Your task to perform on an android device: stop showing notifications on the lock screen Image 0: 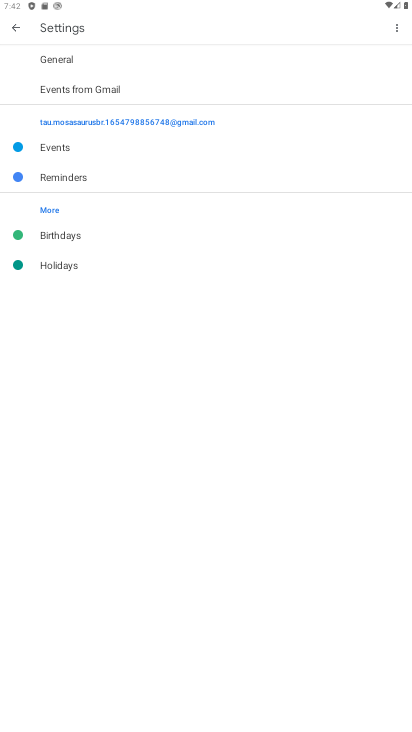
Step 0: press home button
Your task to perform on an android device: stop showing notifications on the lock screen Image 1: 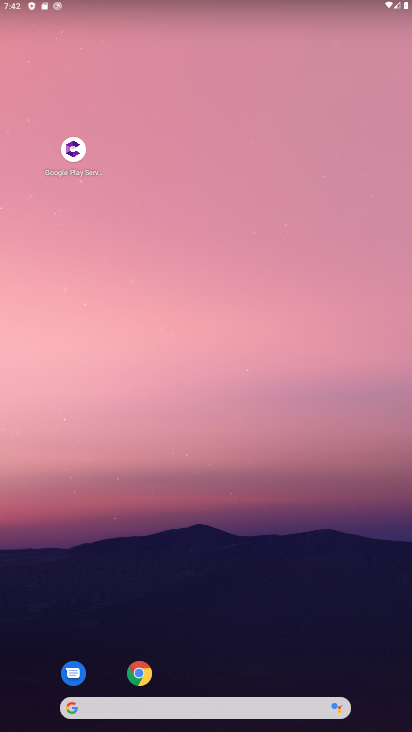
Step 1: drag from (263, 609) to (305, 110)
Your task to perform on an android device: stop showing notifications on the lock screen Image 2: 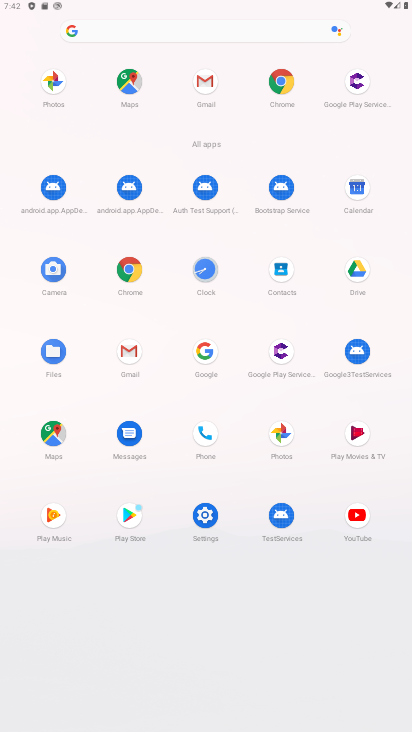
Step 2: click (204, 518)
Your task to perform on an android device: stop showing notifications on the lock screen Image 3: 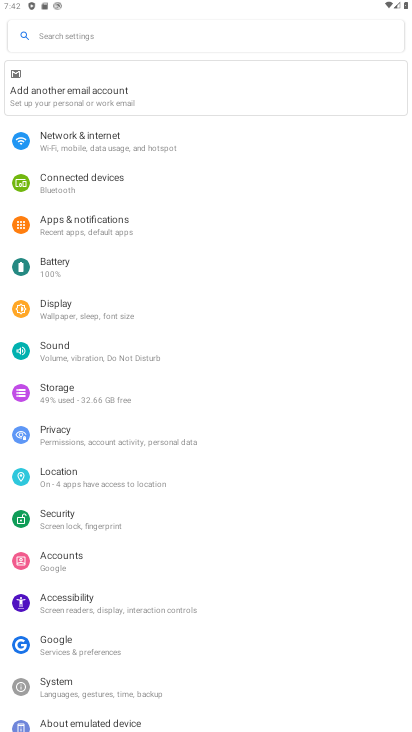
Step 3: click (111, 222)
Your task to perform on an android device: stop showing notifications on the lock screen Image 4: 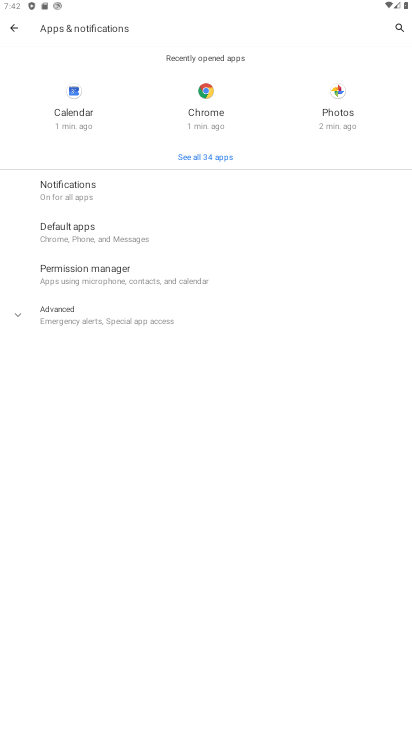
Step 4: click (84, 193)
Your task to perform on an android device: stop showing notifications on the lock screen Image 5: 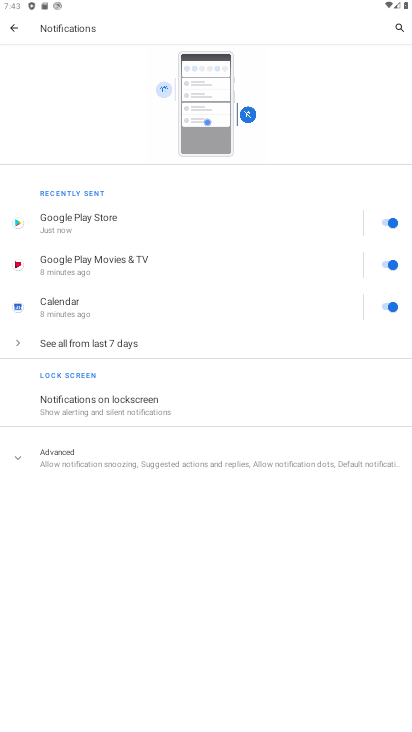
Step 5: click (150, 406)
Your task to perform on an android device: stop showing notifications on the lock screen Image 6: 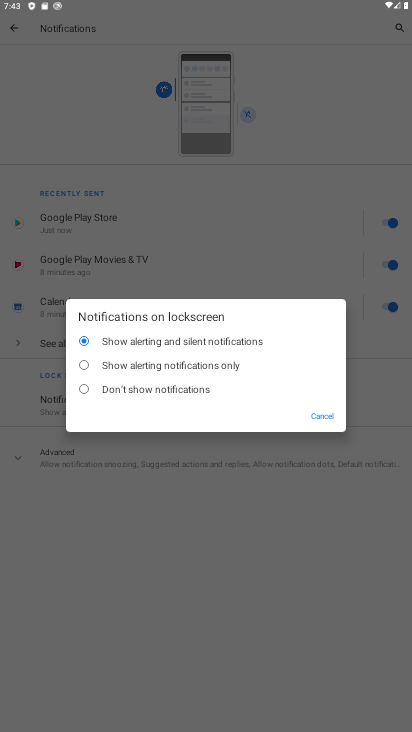
Step 6: click (182, 390)
Your task to perform on an android device: stop showing notifications on the lock screen Image 7: 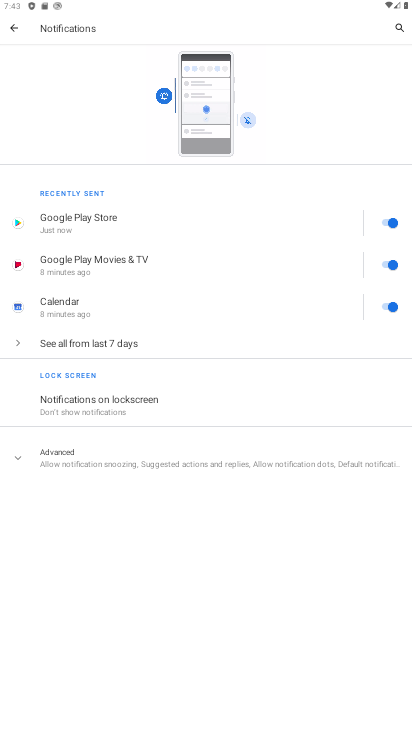
Step 7: task complete